Your task to perform on an android device: Open Google Maps and go to "Timeline" Image 0: 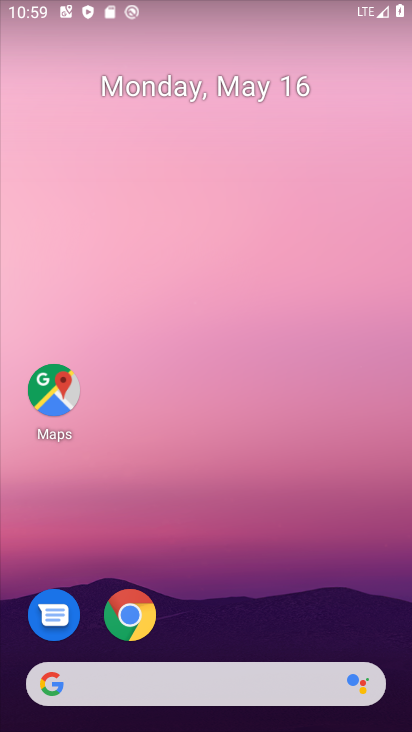
Step 0: drag from (207, 593) to (206, 451)
Your task to perform on an android device: Open Google Maps and go to "Timeline" Image 1: 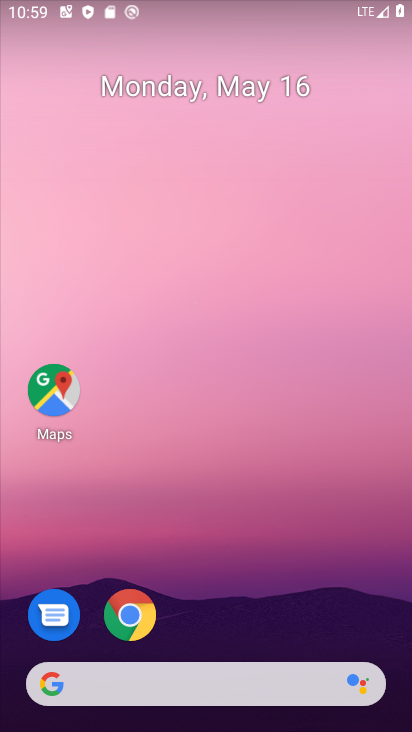
Step 1: click (66, 409)
Your task to perform on an android device: Open Google Maps and go to "Timeline" Image 2: 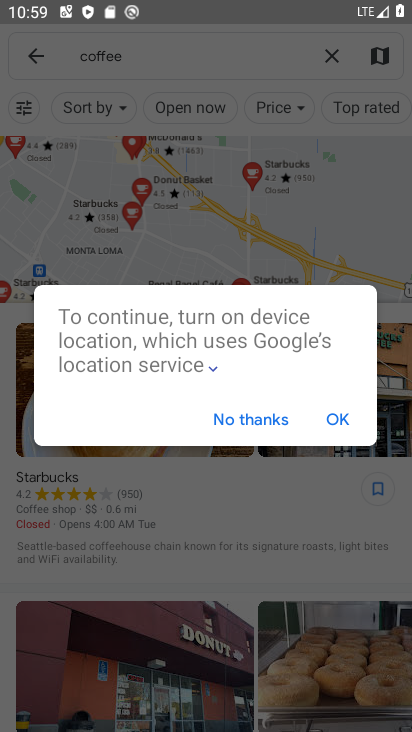
Step 2: click (351, 424)
Your task to perform on an android device: Open Google Maps and go to "Timeline" Image 3: 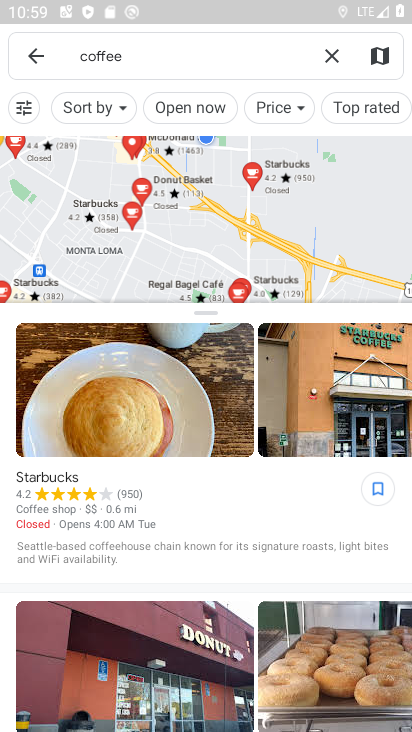
Step 3: click (42, 59)
Your task to perform on an android device: Open Google Maps and go to "Timeline" Image 4: 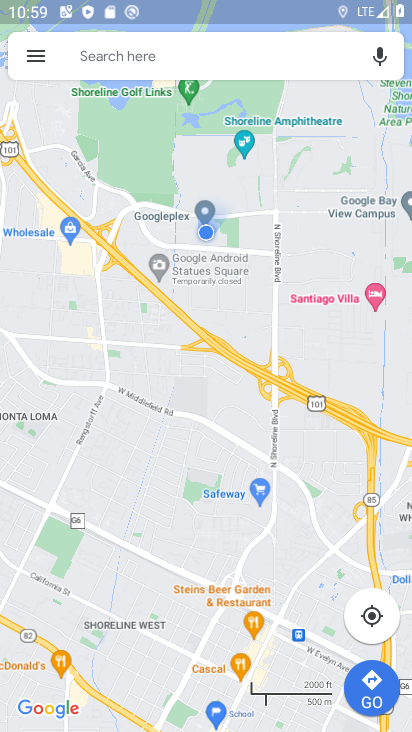
Step 4: click (45, 64)
Your task to perform on an android device: Open Google Maps and go to "Timeline" Image 5: 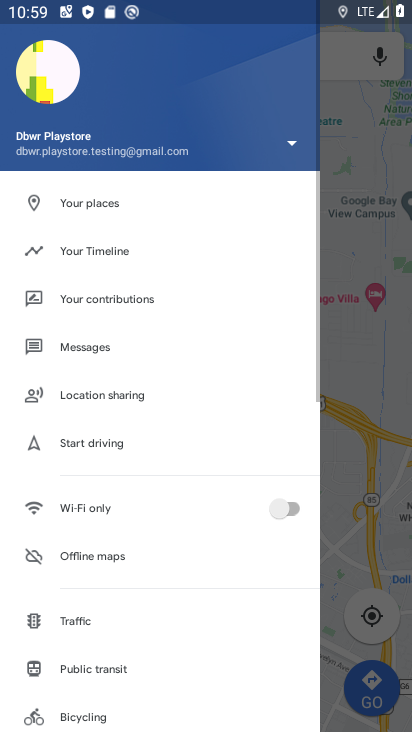
Step 5: click (98, 260)
Your task to perform on an android device: Open Google Maps and go to "Timeline" Image 6: 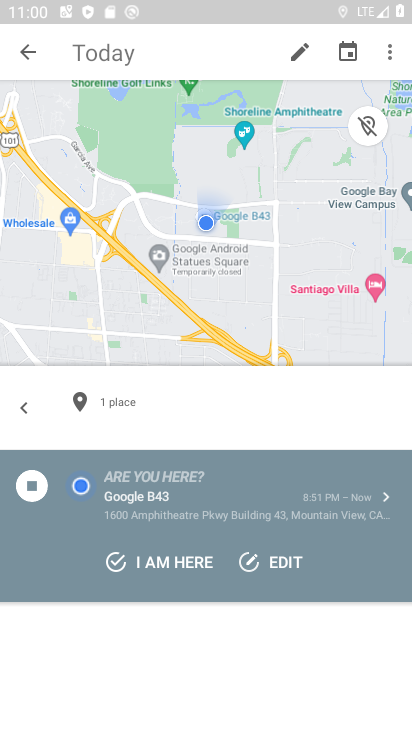
Step 6: task complete